Your task to perform on an android device: toggle priority inbox in the gmail app Image 0: 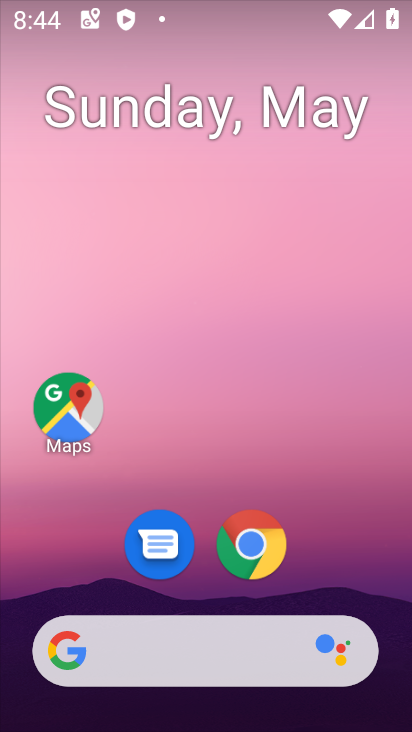
Step 0: drag from (385, 429) to (409, 260)
Your task to perform on an android device: toggle priority inbox in the gmail app Image 1: 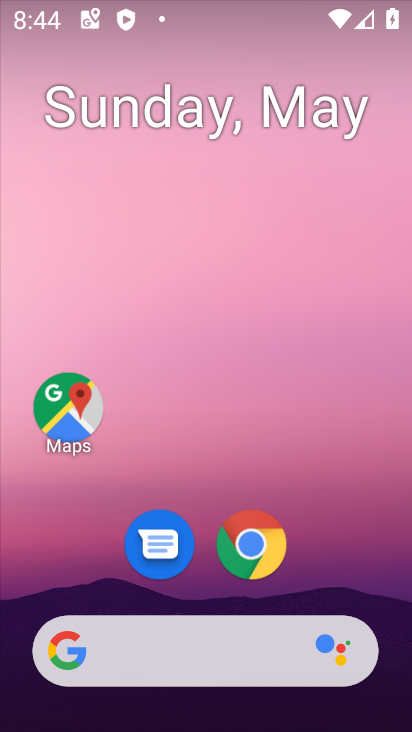
Step 1: drag from (352, 123) to (357, 48)
Your task to perform on an android device: toggle priority inbox in the gmail app Image 2: 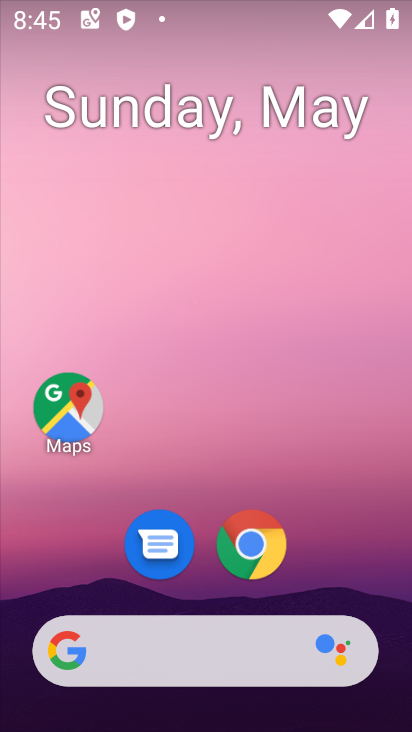
Step 2: drag from (380, 519) to (409, 250)
Your task to perform on an android device: toggle priority inbox in the gmail app Image 3: 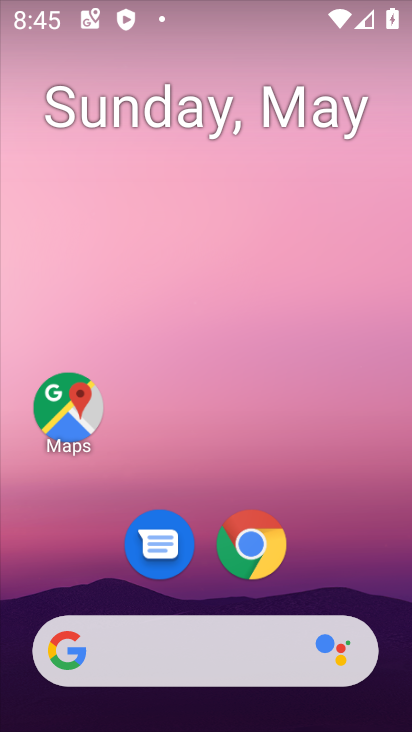
Step 3: drag from (365, 571) to (270, 13)
Your task to perform on an android device: toggle priority inbox in the gmail app Image 4: 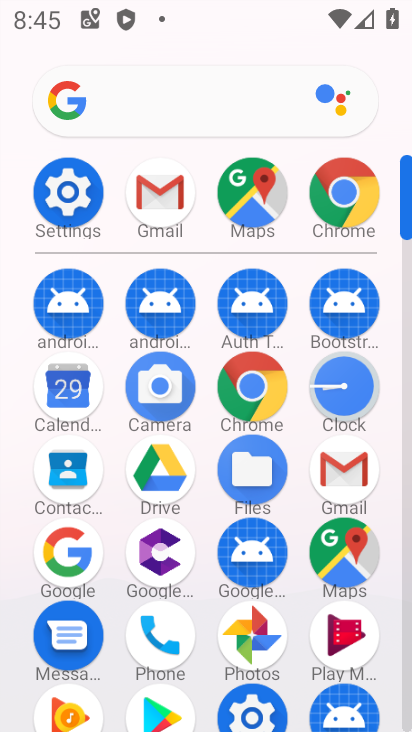
Step 4: click (167, 193)
Your task to perform on an android device: toggle priority inbox in the gmail app Image 5: 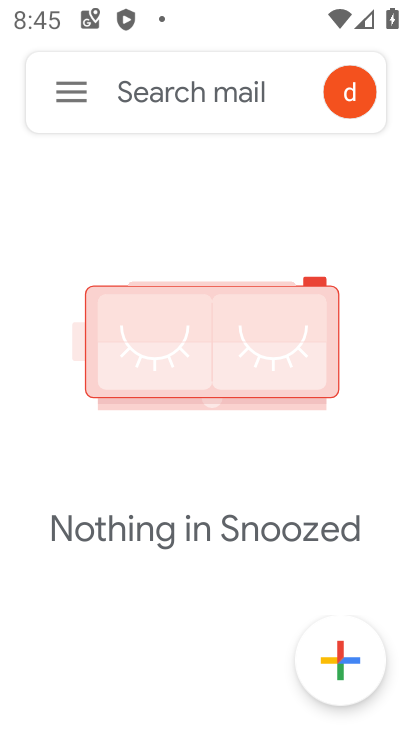
Step 5: click (84, 94)
Your task to perform on an android device: toggle priority inbox in the gmail app Image 6: 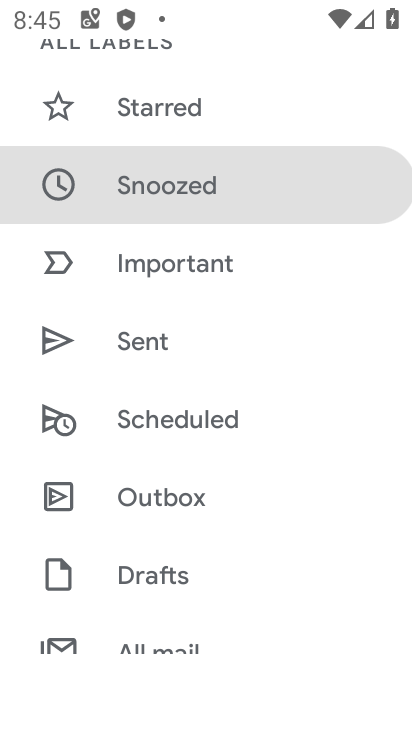
Step 6: drag from (128, 630) to (245, 55)
Your task to perform on an android device: toggle priority inbox in the gmail app Image 7: 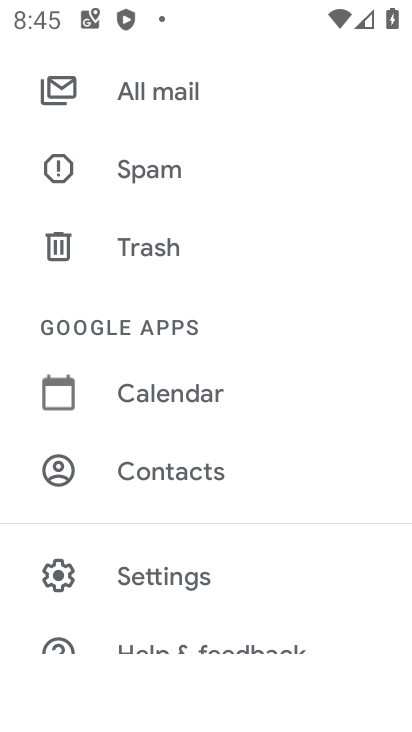
Step 7: click (140, 580)
Your task to perform on an android device: toggle priority inbox in the gmail app Image 8: 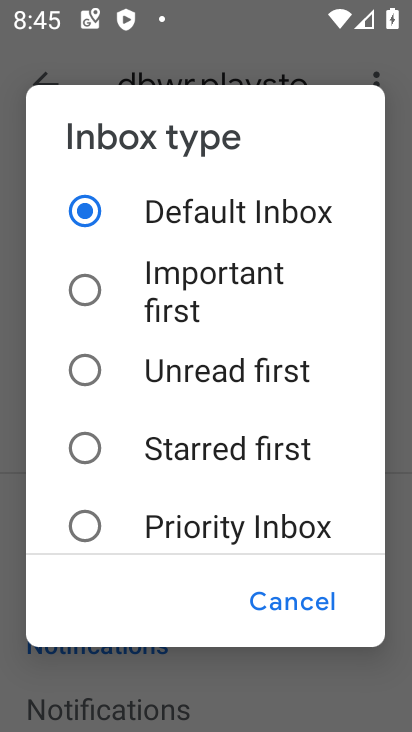
Step 8: click (87, 371)
Your task to perform on an android device: toggle priority inbox in the gmail app Image 9: 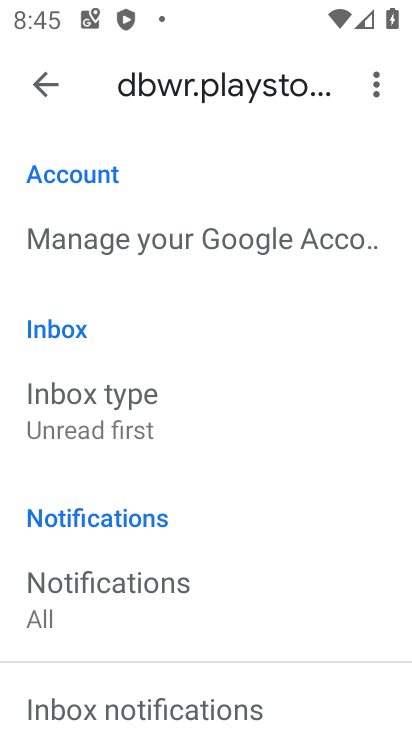
Step 9: task complete